Your task to perform on an android device: Open the phone app and click the voicemail tab. Image 0: 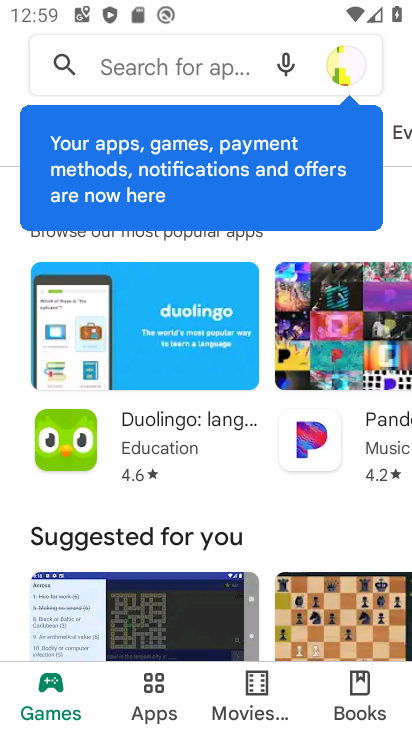
Step 0: press home button
Your task to perform on an android device: Open the phone app and click the voicemail tab. Image 1: 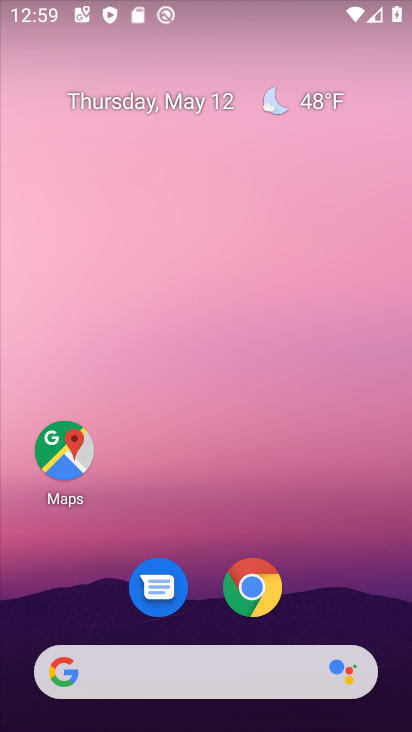
Step 1: drag from (270, 655) to (308, 131)
Your task to perform on an android device: Open the phone app and click the voicemail tab. Image 2: 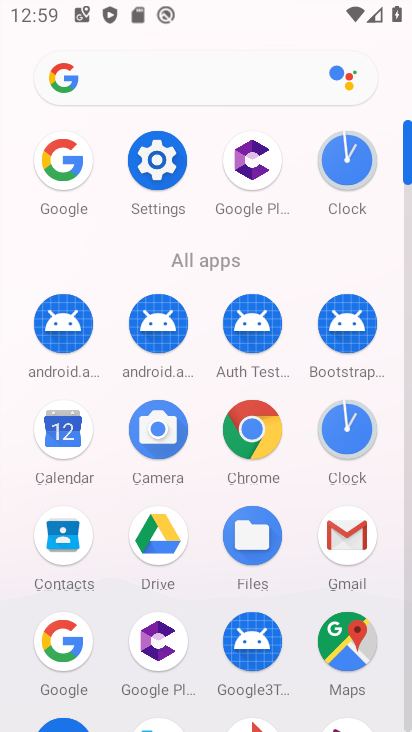
Step 2: drag from (210, 536) to (280, 238)
Your task to perform on an android device: Open the phone app and click the voicemail tab. Image 3: 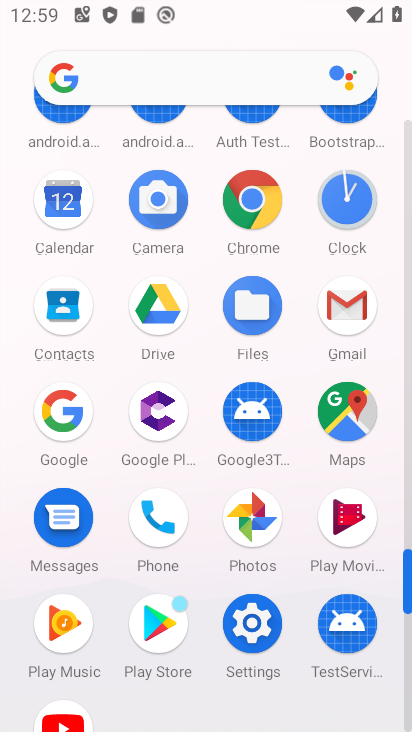
Step 3: click (166, 526)
Your task to perform on an android device: Open the phone app and click the voicemail tab. Image 4: 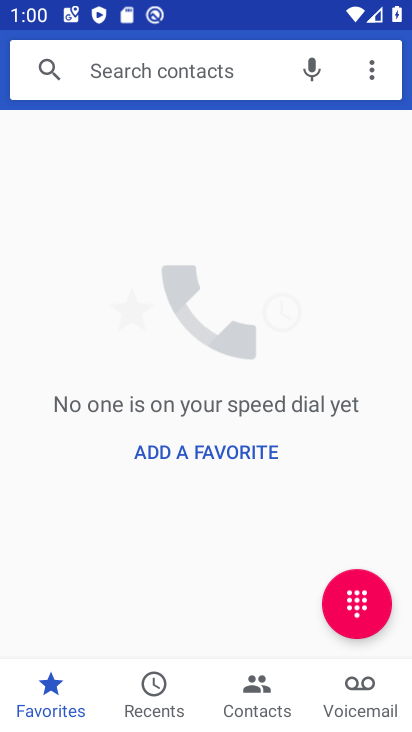
Step 4: click (370, 709)
Your task to perform on an android device: Open the phone app and click the voicemail tab. Image 5: 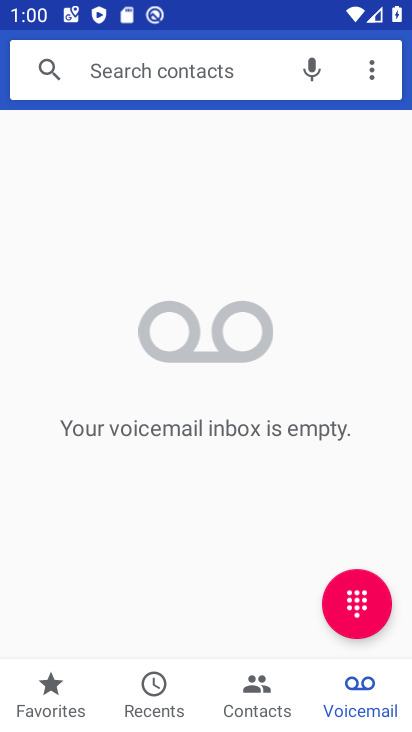
Step 5: press home button
Your task to perform on an android device: Open the phone app and click the voicemail tab. Image 6: 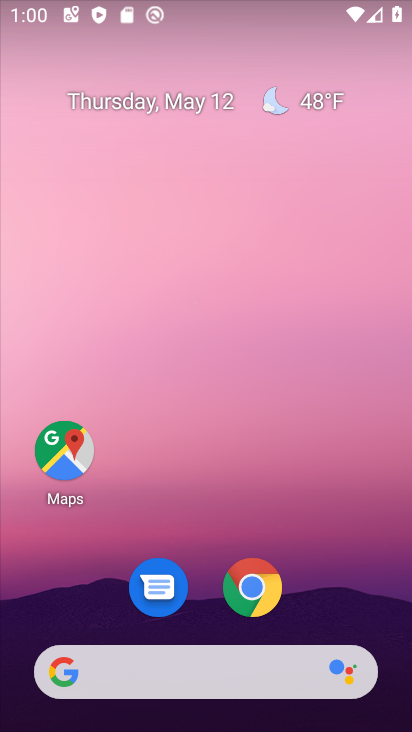
Step 6: drag from (237, 621) to (298, 215)
Your task to perform on an android device: Open the phone app and click the voicemail tab. Image 7: 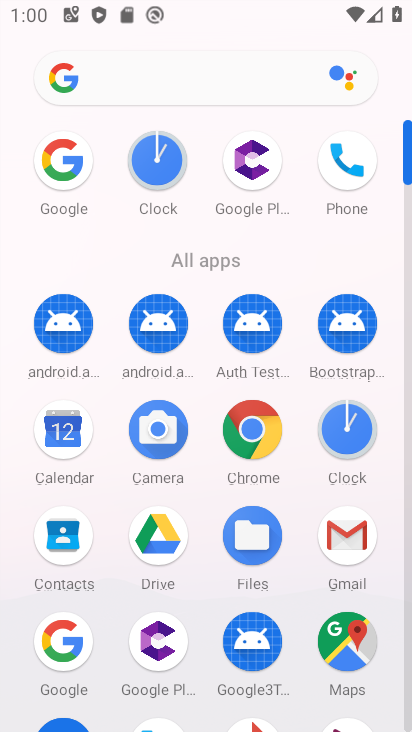
Step 7: drag from (229, 481) to (270, 173)
Your task to perform on an android device: Open the phone app and click the voicemail tab. Image 8: 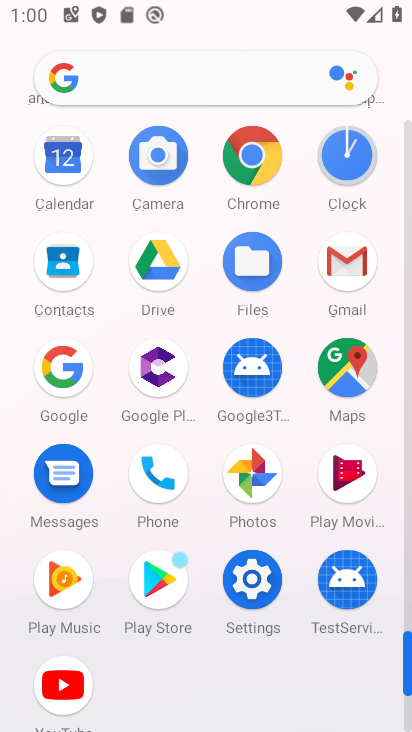
Step 8: click (158, 492)
Your task to perform on an android device: Open the phone app and click the voicemail tab. Image 9: 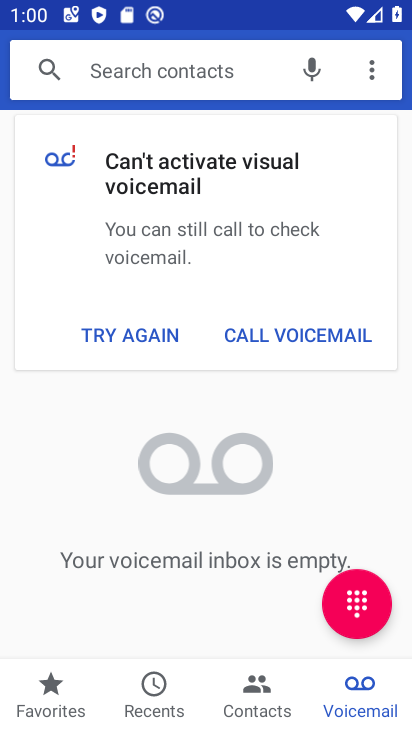
Step 9: task complete